Your task to perform on an android device: install app "Pluto TV - Live TV and Movies" Image 0: 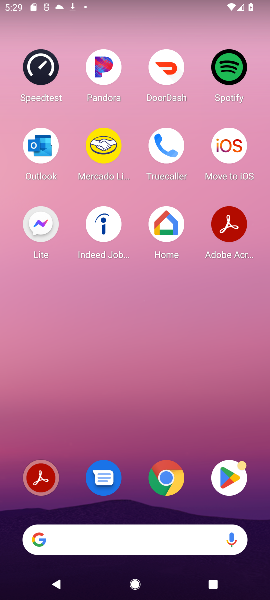
Step 0: press home button
Your task to perform on an android device: install app "Pluto TV - Live TV and Movies" Image 1: 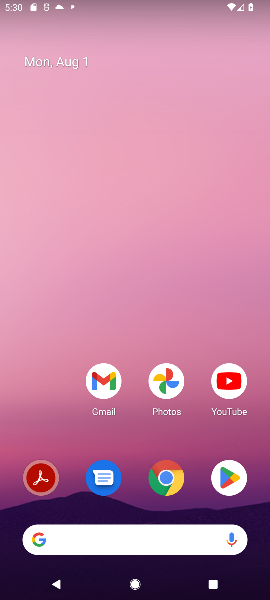
Step 1: click (245, 471)
Your task to perform on an android device: install app "Pluto TV - Live TV and Movies" Image 2: 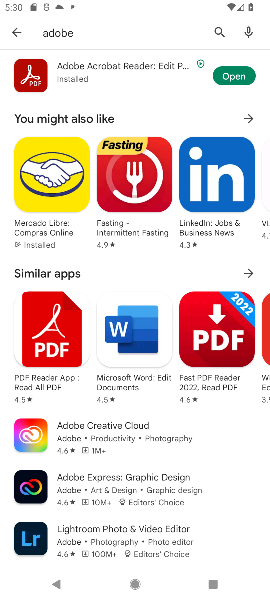
Step 2: click (216, 25)
Your task to perform on an android device: install app "Pluto TV - Live TV and Movies" Image 3: 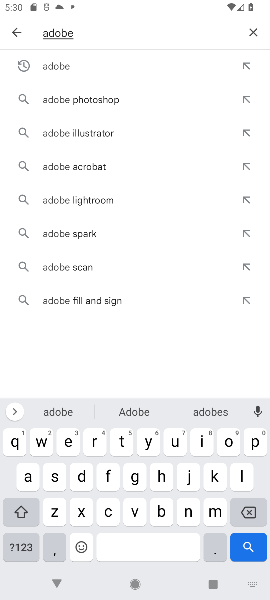
Step 3: click (257, 31)
Your task to perform on an android device: install app "Pluto TV - Live TV and Movies" Image 4: 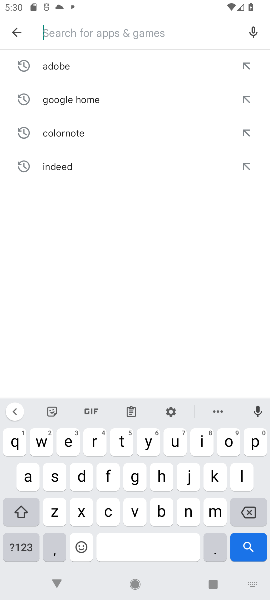
Step 4: click (256, 438)
Your task to perform on an android device: install app "Pluto TV - Live TV and Movies" Image 5: 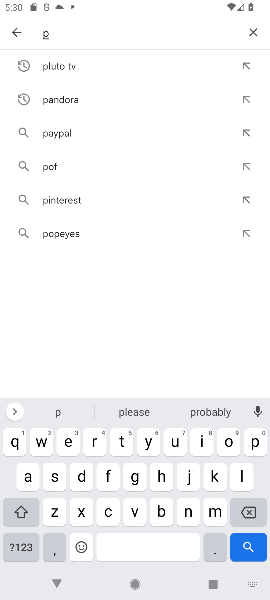
Step 5: click (245, 475)
Your task to perform on an android device: install app "Pluto TV - Live TV and Movies" Image 6: 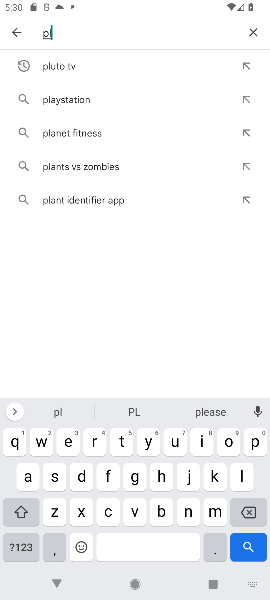
Step 6: click (169, 442)
Your task to perform on an android device: install app "Pluto TV - Live TV and Movies" Image 7: 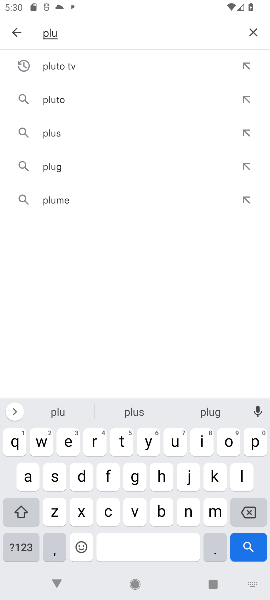
Step 7: click (57, 66)
Your task to perform on an android device: install app "Pluto TV - Live TV and Movies" Image 8: 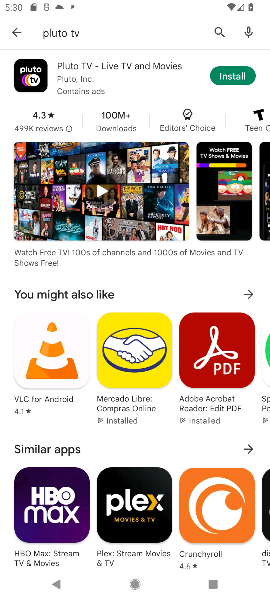
Step 8: click (225, 80)
Your task to perform on an android device: install app "Pluto TV - Live TV and Movies" Image 9: 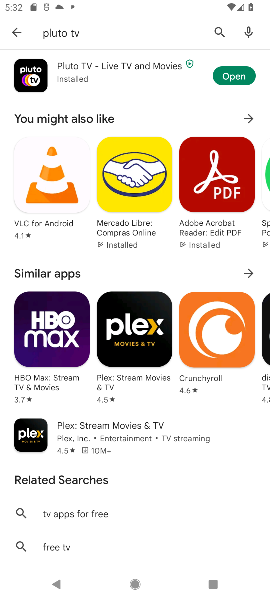
Step 9: task complete